Your task to perform on an android device: change keyboard looks Image 0: 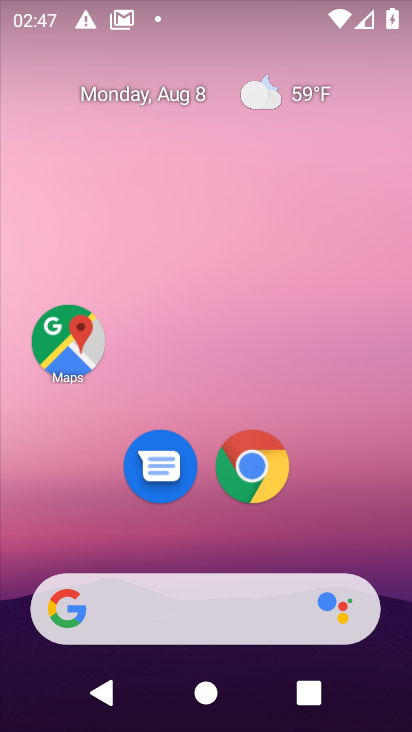
Step 0: drag from (234, 612) to (401, 240)
Your task to perform on an android device: change keyboard looks Image 1: 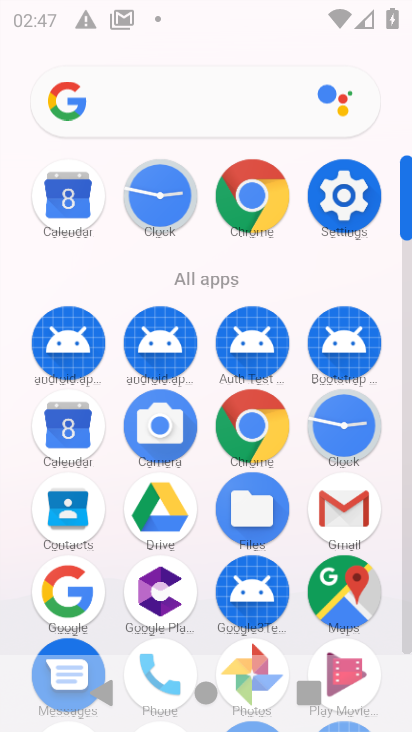
Step 1: click (330, 226)
Your task to perform on an android device: change keyboard looks Image 2: 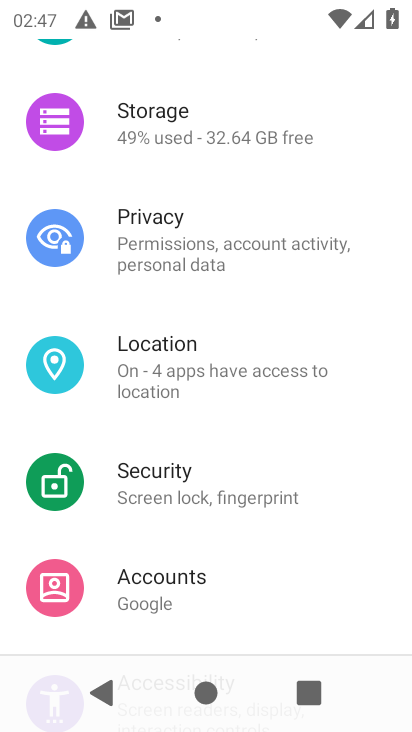
Step 2: drag from (200, 489) to (225, 10)
Your task to perform on an android device: change keyboard looks Image 3: 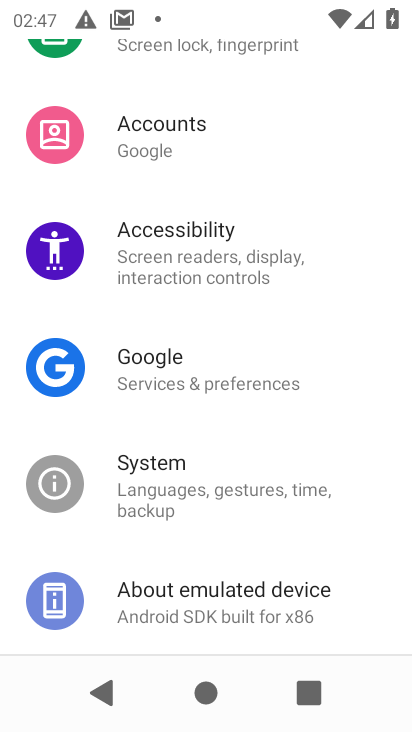
Step 3: click (205, 483)
Your task to perform on an android device: change keyboard looks Image 4: 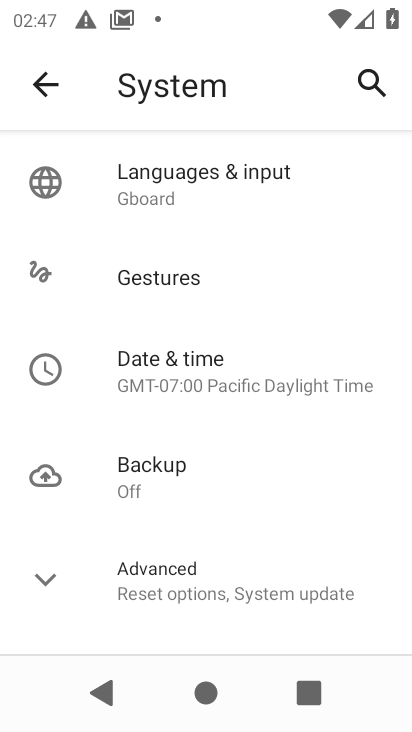
Step 4: click (195, 205)
Your task to perform on an android device: change keyboard looks Image 5: 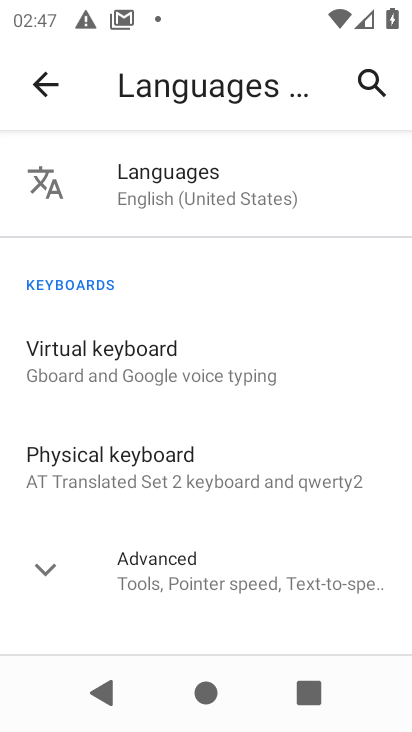
Step 5: click (127, 361)
Your task to perform on an android device: change keyboard looks Image 6: 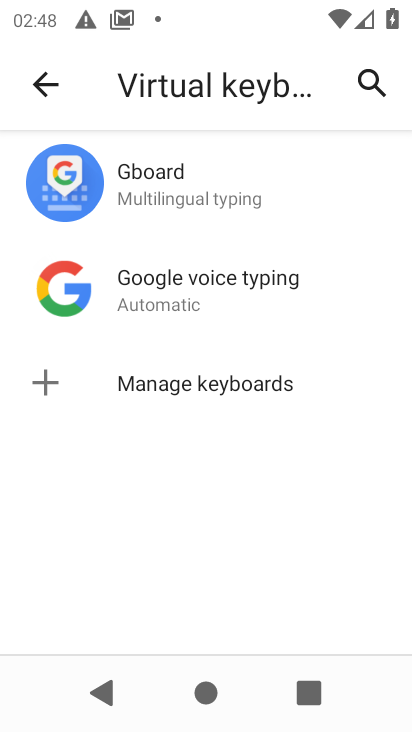
Step 6: click (137, 217)
Your task to perform on an android device: change keyboard looks Image 7: 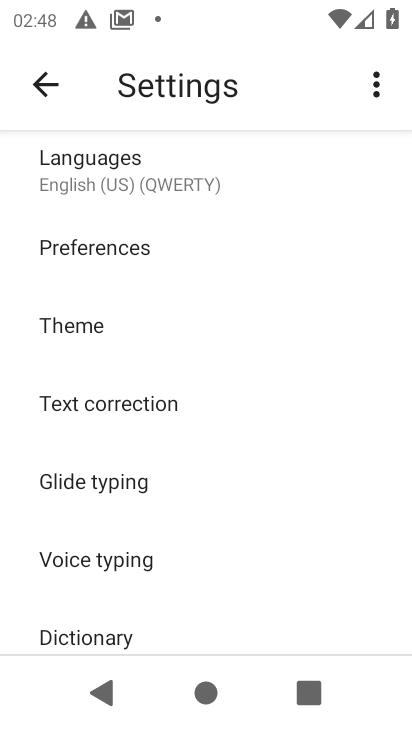
Step 7: click (102, 334)
Your task to perform on an android device: change keyboard looks Image 8: 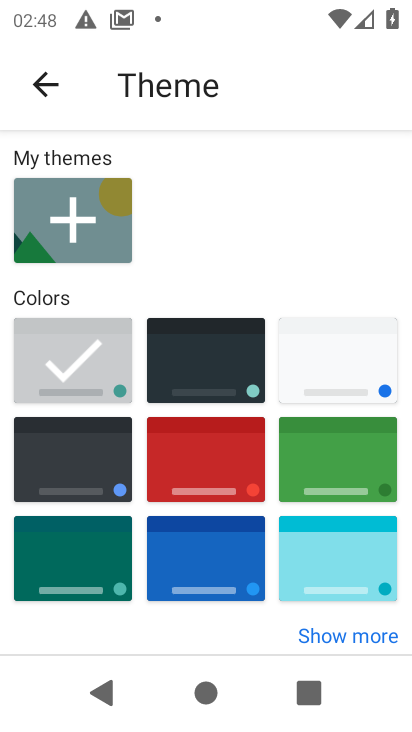
Step 8: click (240, 535)
Your task to perform on an android device: change keyboard looks Image 9: 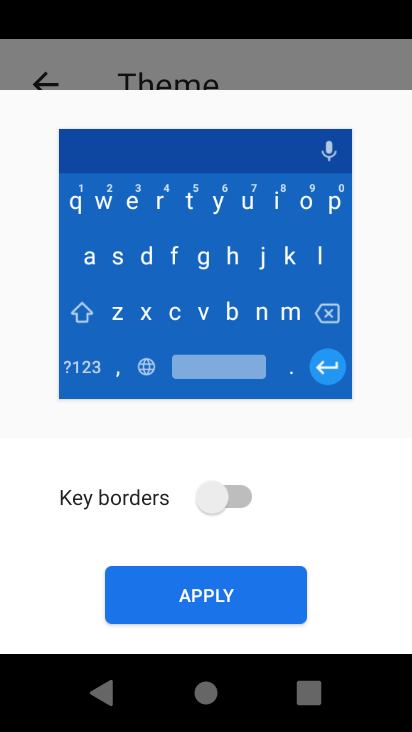
Step 9: click (223, 590)
Your task to perform on an android device: change keyboard looks Image 10: 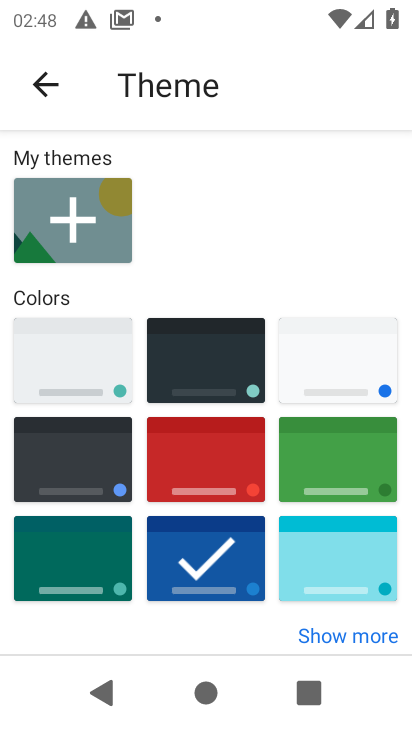
Step 10: task complete